Your task to perform on an android device: Open settings on Google Maps Image 0: 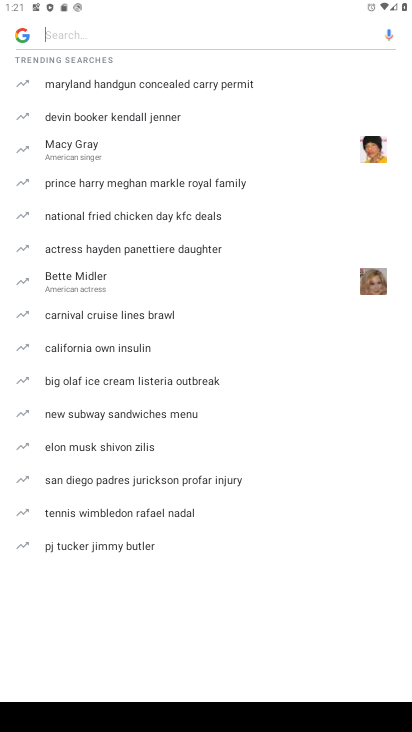
Step 0: press home button
Your task to perform on an android device: Open settings on Google Maps Image 1: 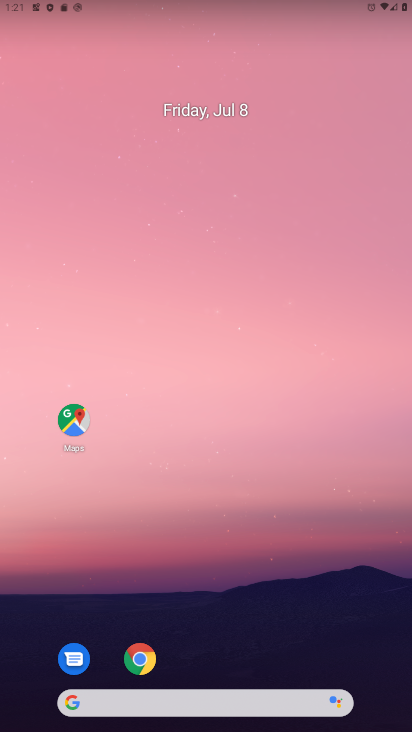
Step 1: drag from (230, 565) to (136, 141)
Your task to perform on an android device: Open settings on Google Maps Image 2: 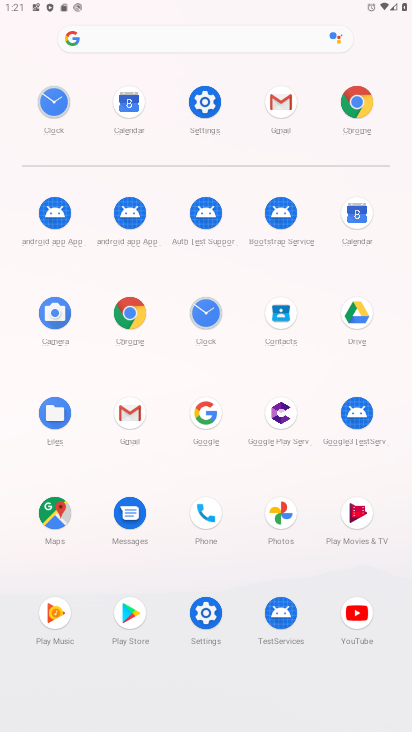
Step 2: click (51, 503)
Your task to perform on an android device: Open settings on Google Maps Image 3: 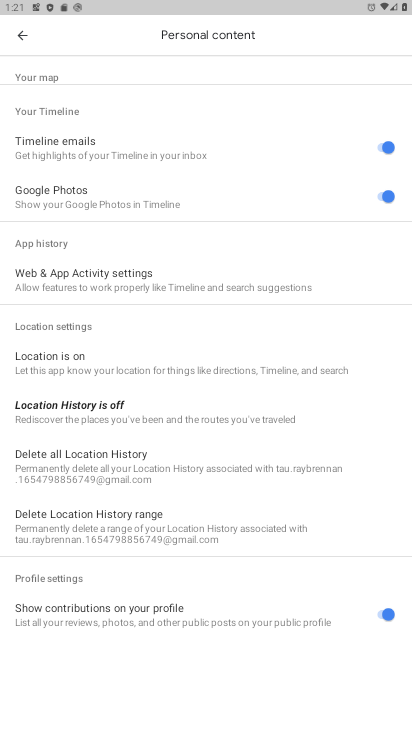
Step 3: click (18, 33)
Your task to perform on an android device: Open settings on Google Maps Image 4: 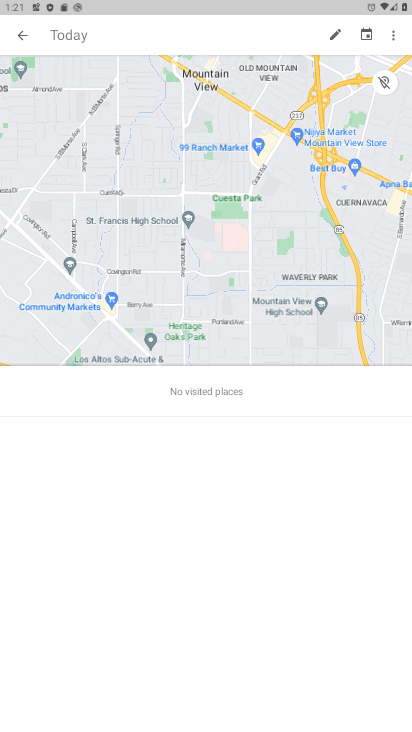
Step 4: click (25, 36)
Your task to perform on an android device: Open settings on Google Maps Image 5: 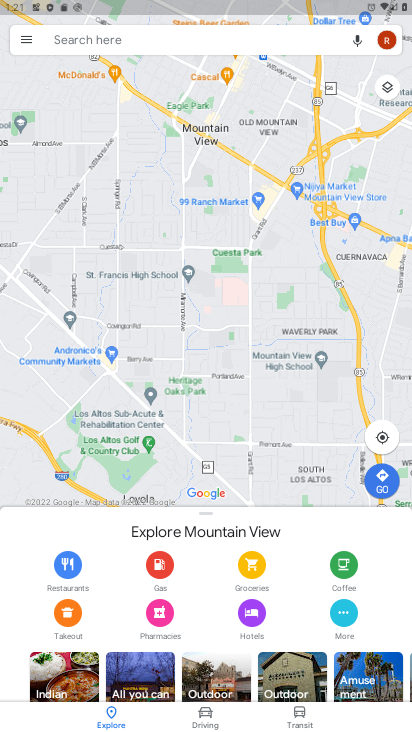
Step 5: click (24, 37)
Your task to perform on an android device: Open settings on Google Maps Image 6: 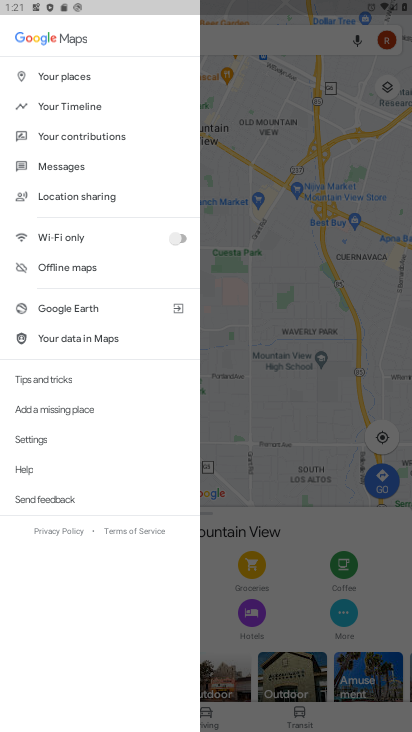
Step 6: click (33, 435)
Your task to perform on an android device: Open settings on Google Maps Image 7: 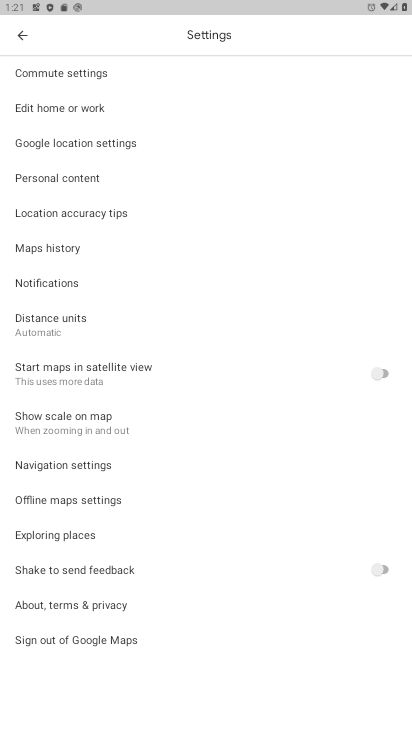
Step 7: task complete